Your task to perform on an android device: visit the assistant section in the google photos Image 0: 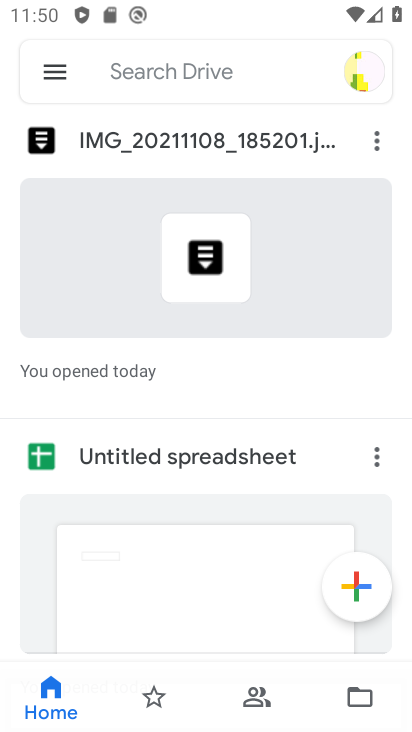
Step 0: press home button
Your task to perform on an android device: visit the assistant section in the google photos Image 1: 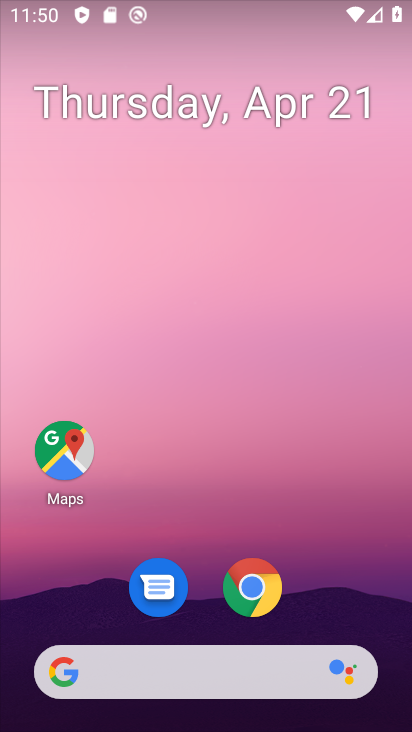
Step 1: drag from (344, 612) to (341, 0)
Your task to perform on an android device: visit the assistant section in the google photos Image 2: 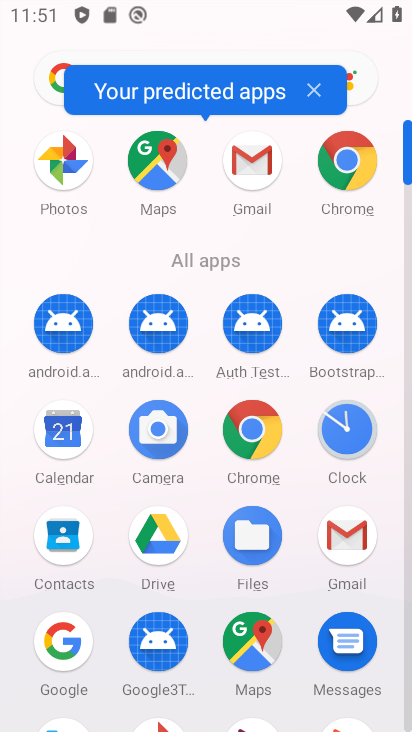
Step 2: click (55, 166)
Your task to perform on an android device: visit the assistant section in the google photos Image 3: 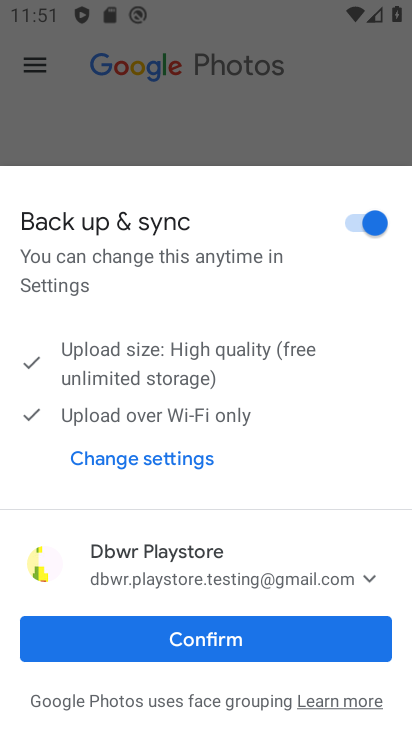
Step 3: click (195, 640)
Your task to perform on an android device: visit the assistant section in the google photos Image 4: 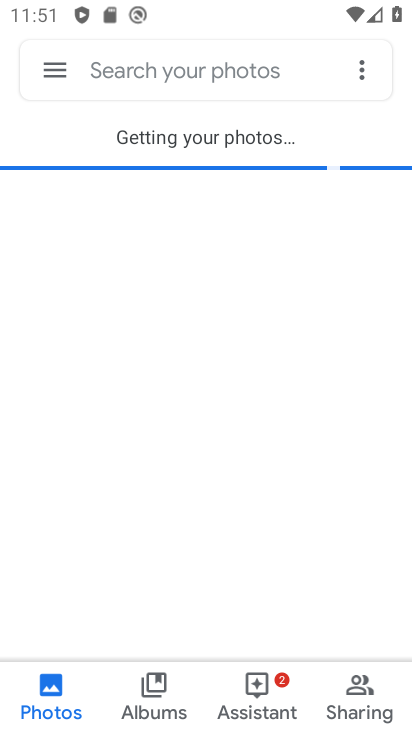
Step 4: click (254, 688)
Your task to perform on an android device: visit the assistant section in the google photos Image 5: 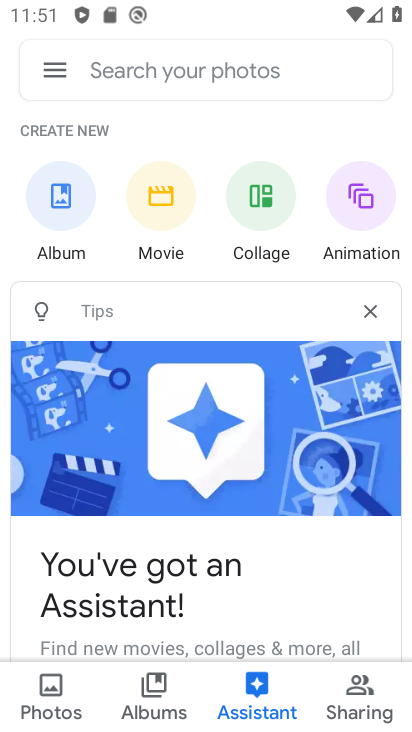
Step 5: task complete